Your task to perform on an android device: turn on notifications settings in the gmail app Image 0: 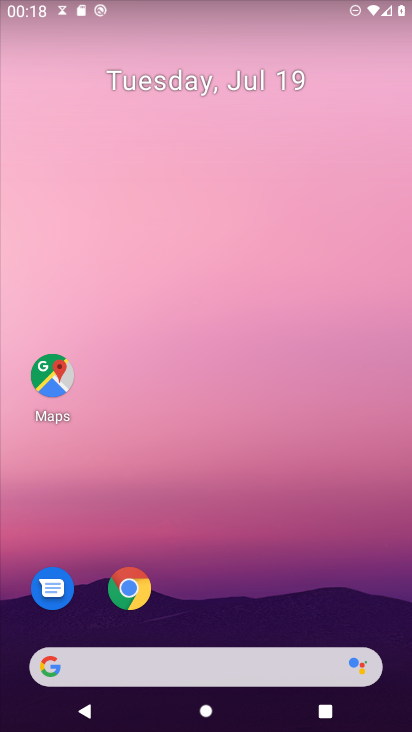
Step 0: press home button
Your task to perform on an android device: turn on notifications settings in the gmail app Image 1: 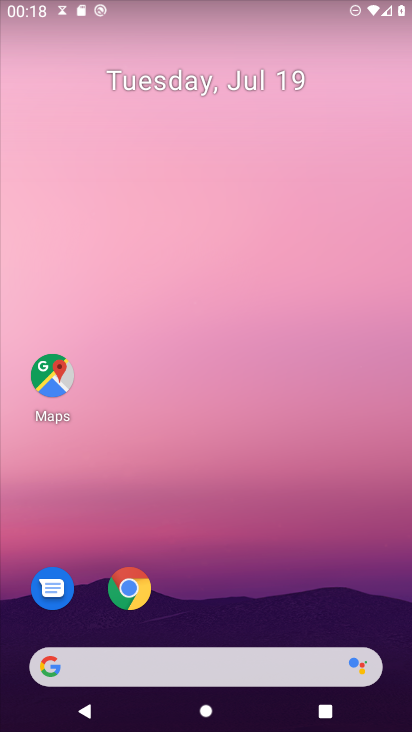
Step 1: drag from (291, 540) to (306, 0)
Your task to perform on an android device: turn on notifications settings in the gmail app Image 2: 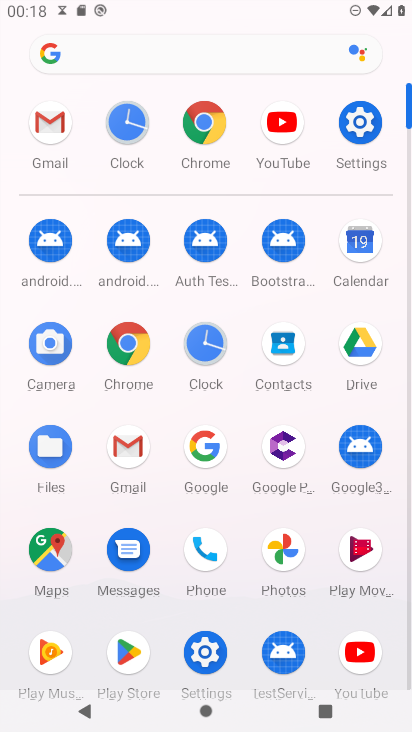
Step 2: click (45, 123)
Your task to perform on an android device: turn on notifications settings in the gmail app Image 3: 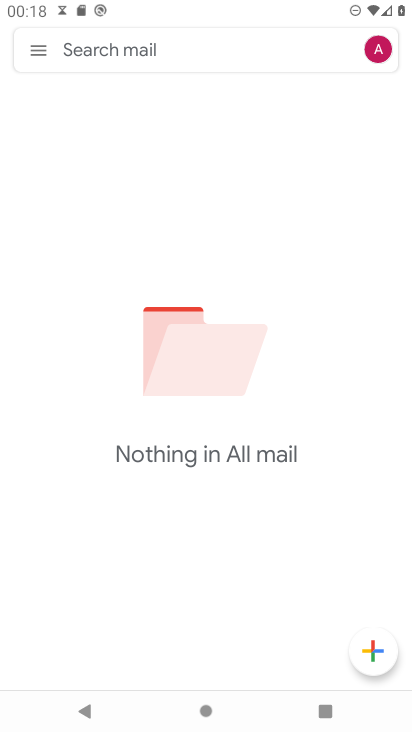
Step 3: click (32, 51)
Your task to perform on an android device: turn on notifications settings in the gmail app Image 4: 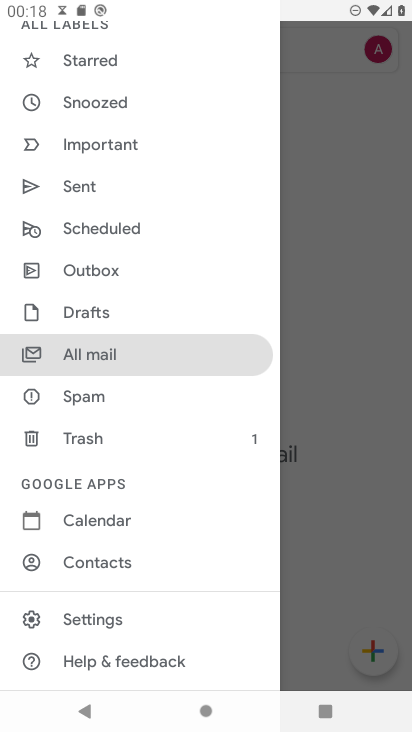
Step 4: click (112, 617)
Your task to perform on an android device: turn on notifications settings in the gmail app Image 5: 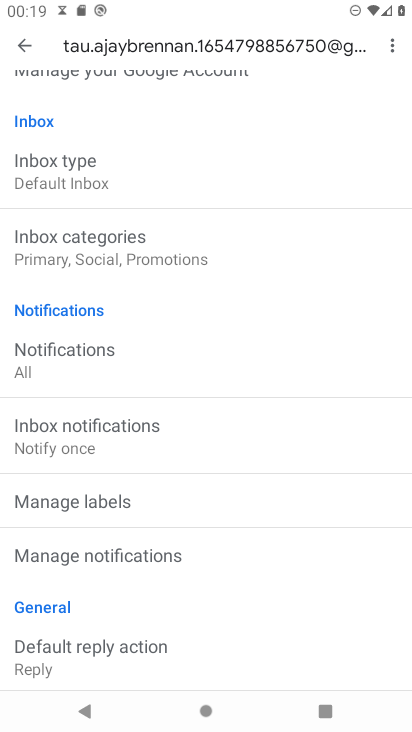
Step 5: click (76, 551)
Your task to perform on an android device: turn on notifications settings in the gmail app Image 6: 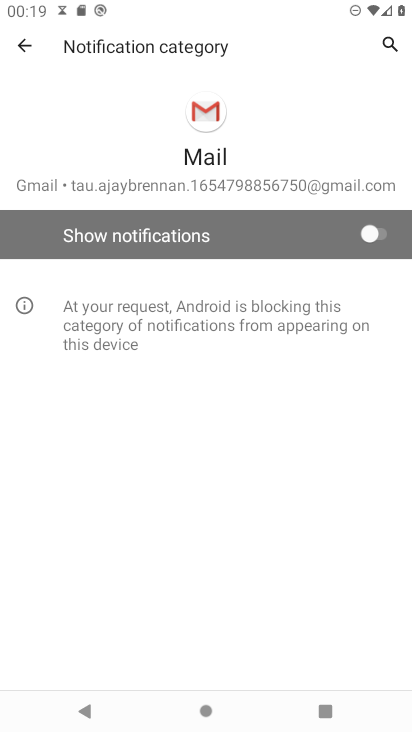
Step 6: click (366, 233)
Your task to perform on an android device: turn on notifications settings in the gmail app Image 7: 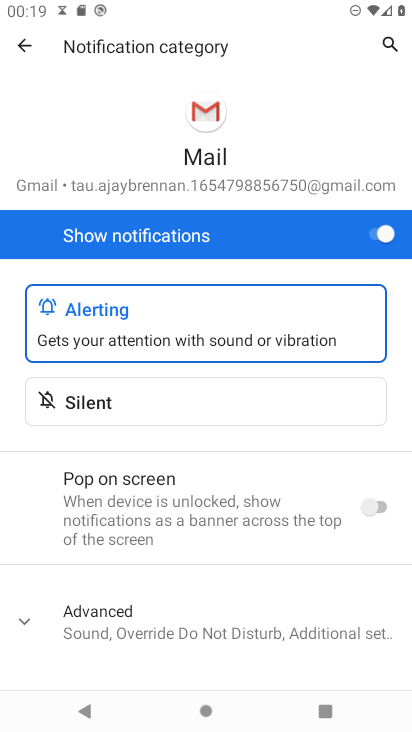
Step 7: task complete